Your task to perform on an android device: empty trash in google photos Image 0: 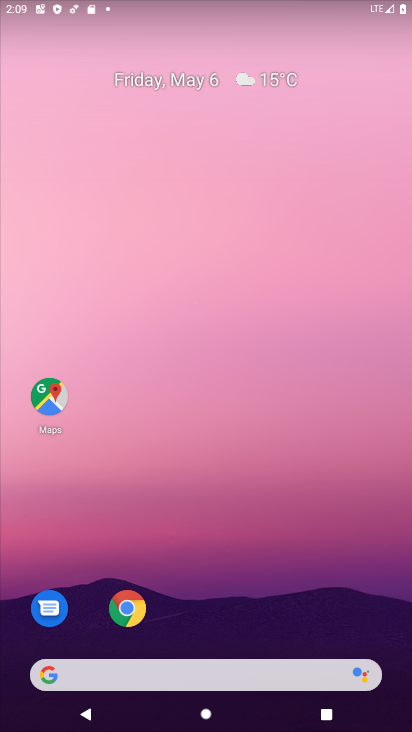
Step 0: drag from (212, 604) to (242, 14)
Your task to perform on an android device: empty trash in google photos Image 1: 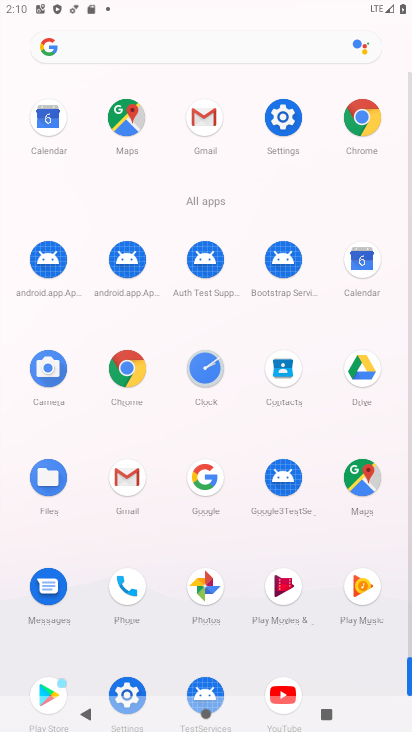
Step 1: click (205, 588)
Your task to perform on an android device: empty trash in google photos Image 2: 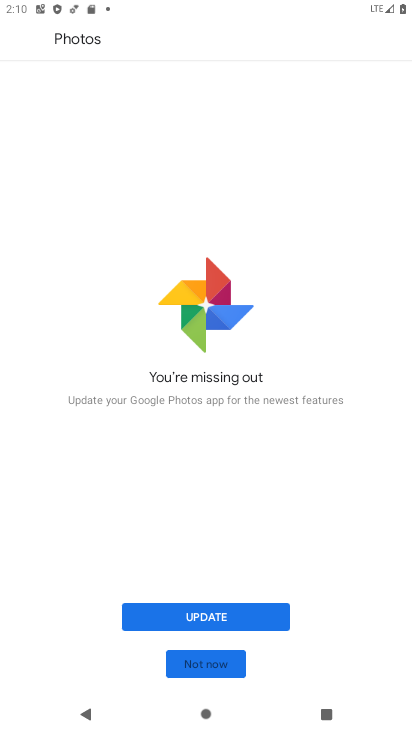
Step 2: click (193, 622)
Your task to perform on an android device: empty trash in google photos Image 3: 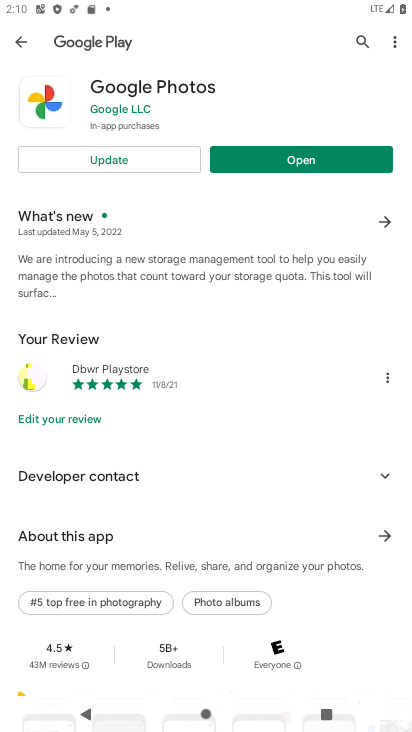
Step 3: click (151, 156)
Your task to perform on an android device: empty trash in google photos Image 4: 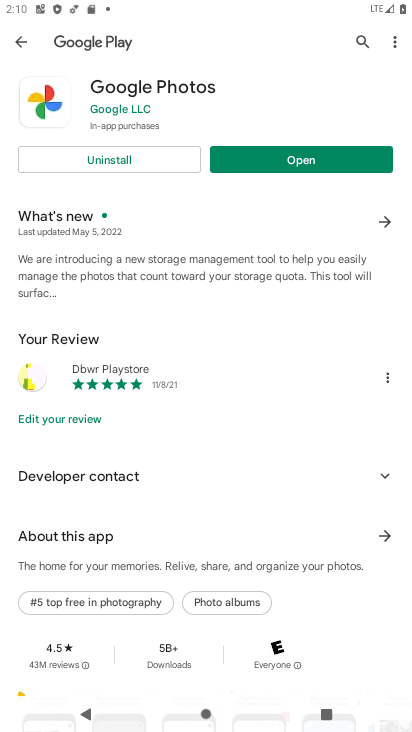
Step 4: click (267, 148)
Your task to perform on an android device: empty trash in google photos Image 5: 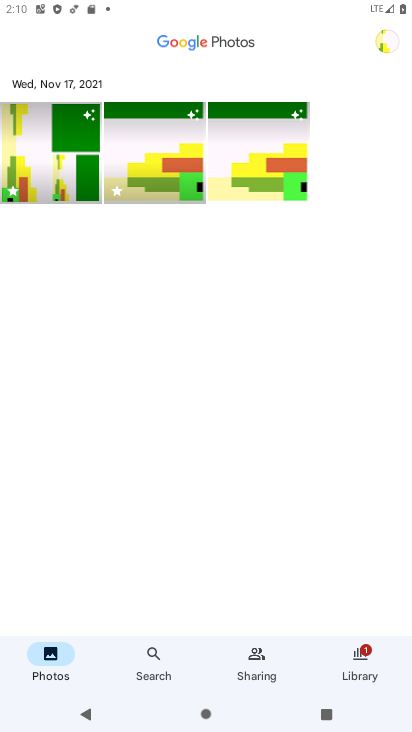
Step 5: click (357, 652)
Your task to perform on an android device: empty trash in google photos Image 6: 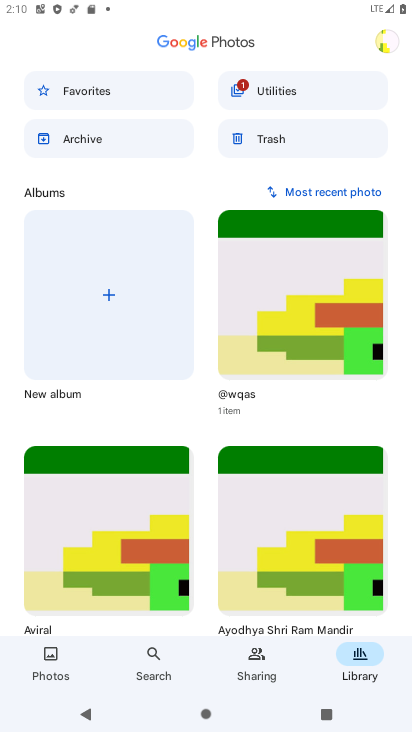
Step 6: click (268, 144)
Your task to perform on an android device: empty trash in google photos Image 7: 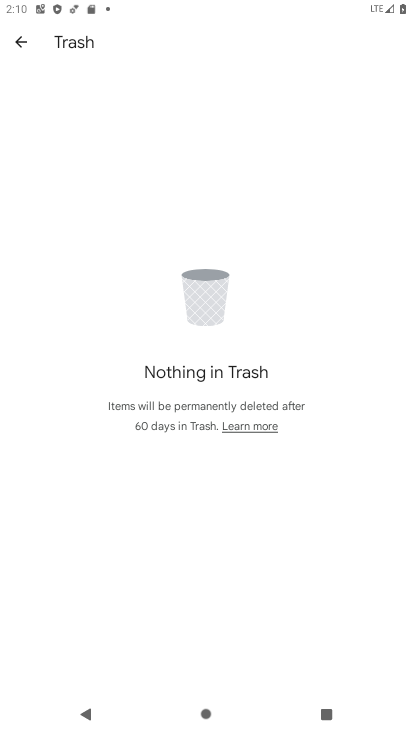
Step 7: task complete